Your task to perform on an android device: Go to Yahoo.com Image 0: 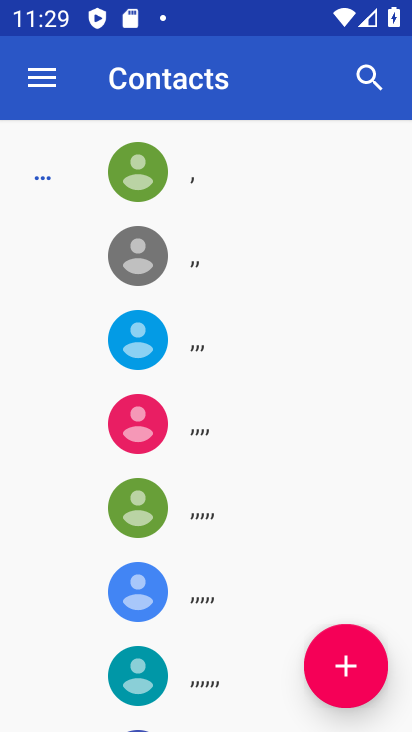
Step 0: press home button
Your task to perform on an android device: Go to Yahoo.com Image 1: 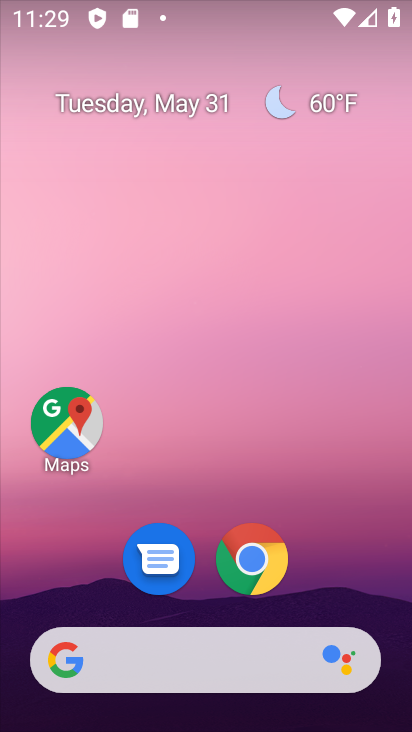
Step 1: drag from (390, 660) to (279, 13)
Your task to perform on an android device: Go to Yahoo.com Image 2: 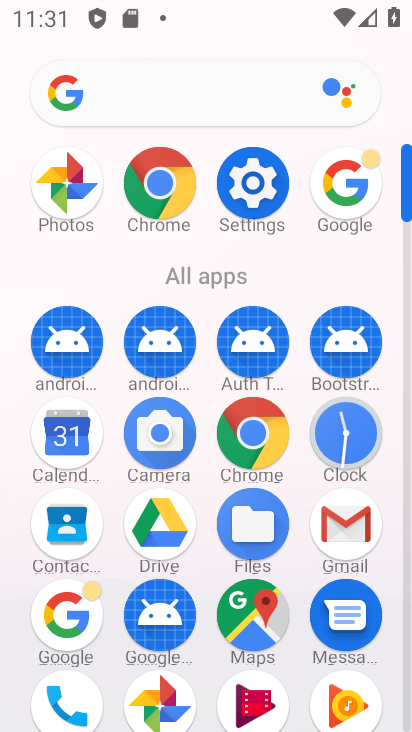
Step 2: click (56, 622)
Your task to perform on an android device: Go to Yahoo.com Image 3: 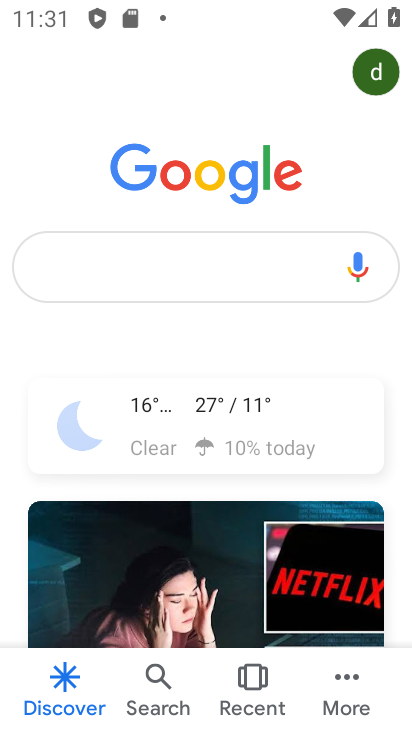
Step 3: click (135, 258)
Your task to perform on an android device: Go to Yahoo.com Image 4: 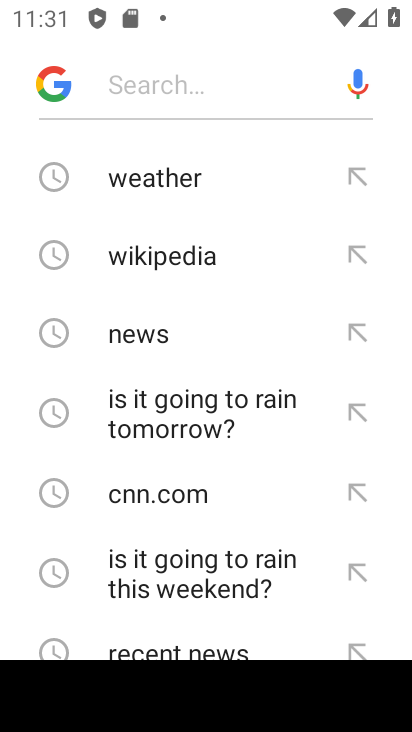
Step 4: drag from (183, 510) to (205, 133)
Your task to perform on an android device: Go to Yahoo.com Image 5: 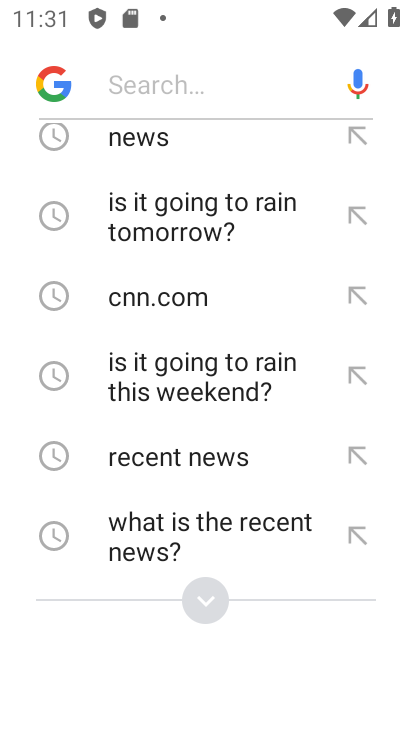
Step 5: click (198, 593)
Your task to perform on an android device: Go to Yahoo.com Image 6: 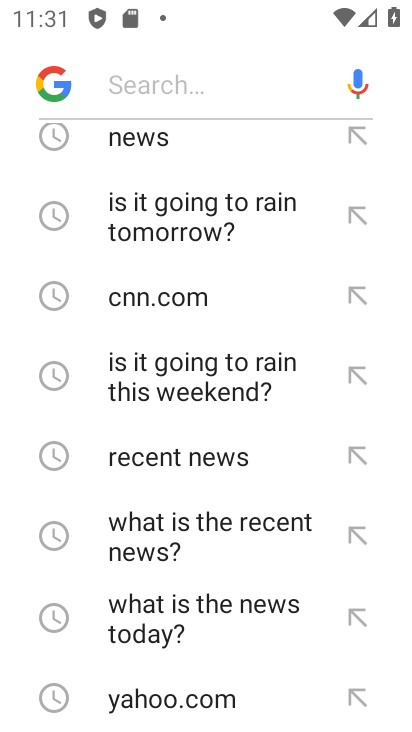
Step 6: click (150, 683)
Your task to perform on an android device: Go to Yahoo.com Image 7: 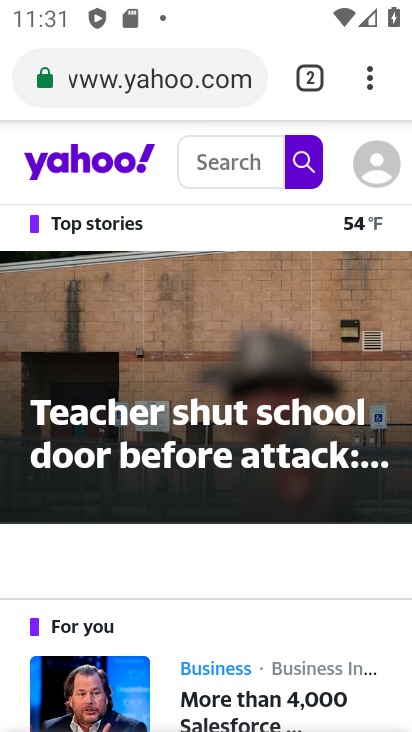
Step 7: task complete